Your task to perform on an android device: Open the gallery Image 0: 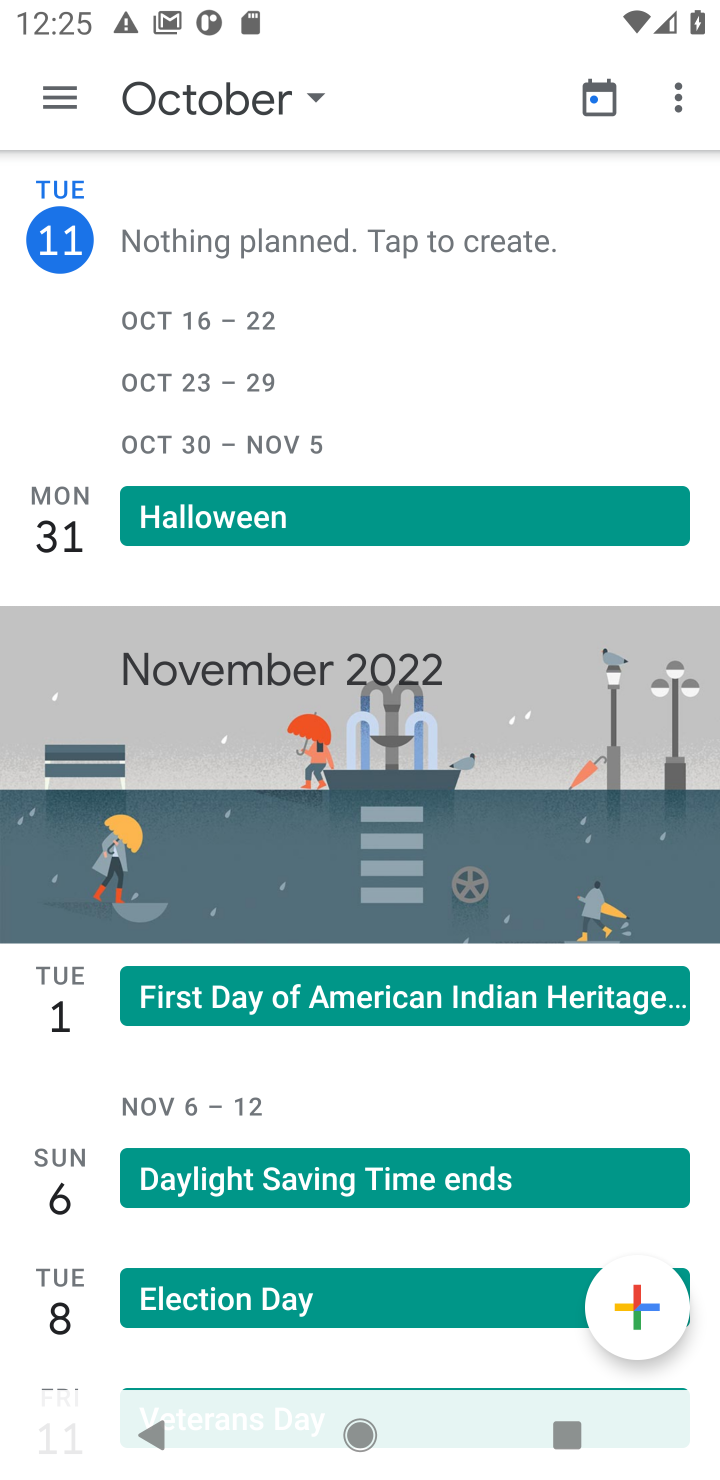
Step 0: press home button
Your task to perform on an android device: Open the gallery Image 1: 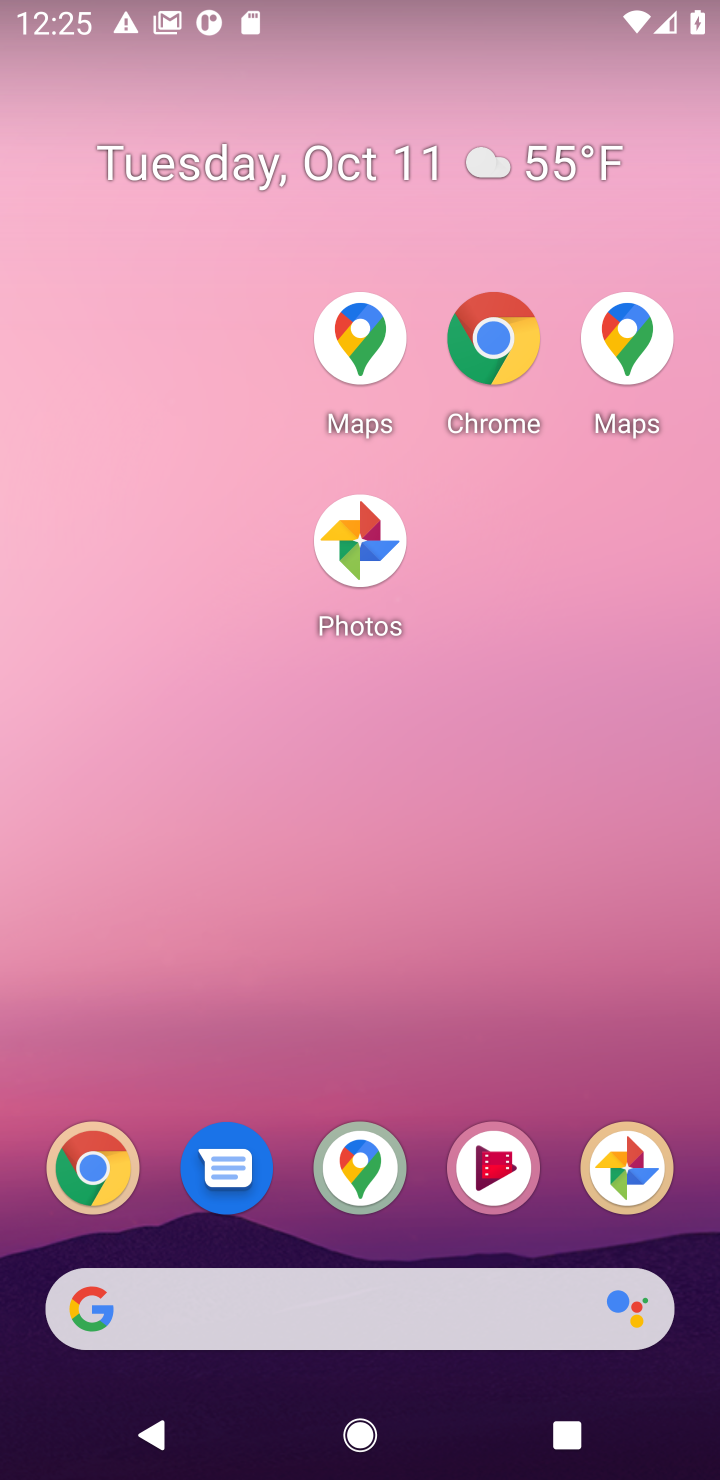
Step 1: drag from (387, 1230) to (466, 686)
Your task to perform on an android device: Open the gallery Image 2: 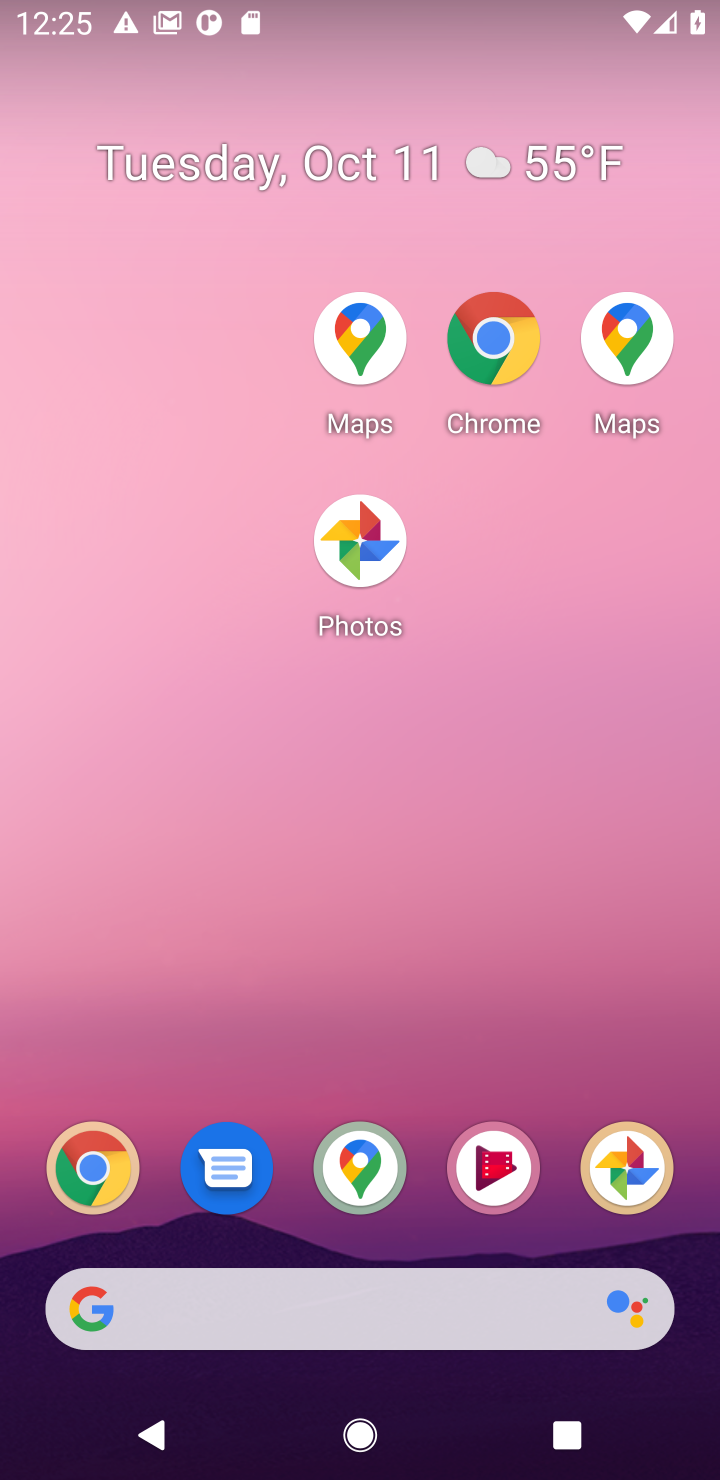
Step 2: drag from (440, 1154) to (431, 8)
Your task to perform on an android device: Open the gallery Image 3: 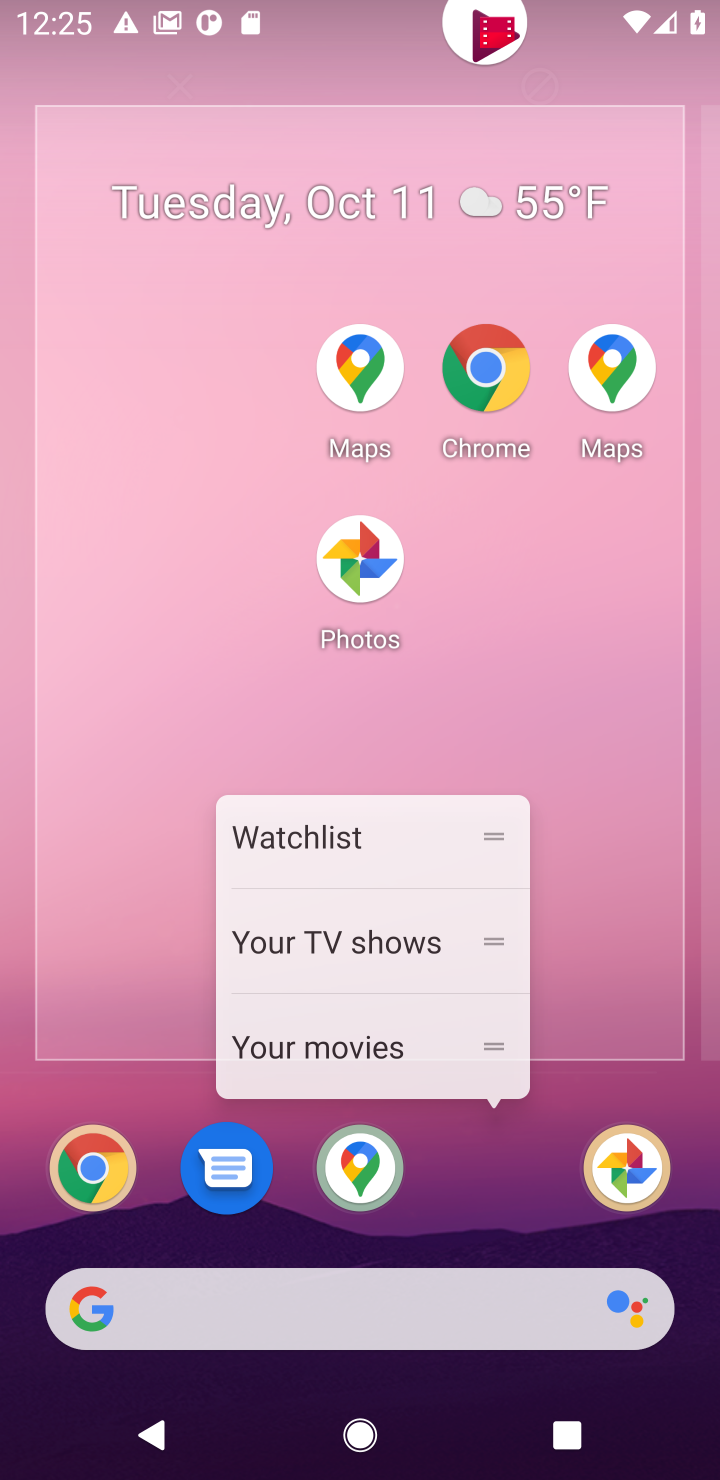
Step 3: click (639, 716)
Your task to perform on an android device: Open the gallery Image 4: 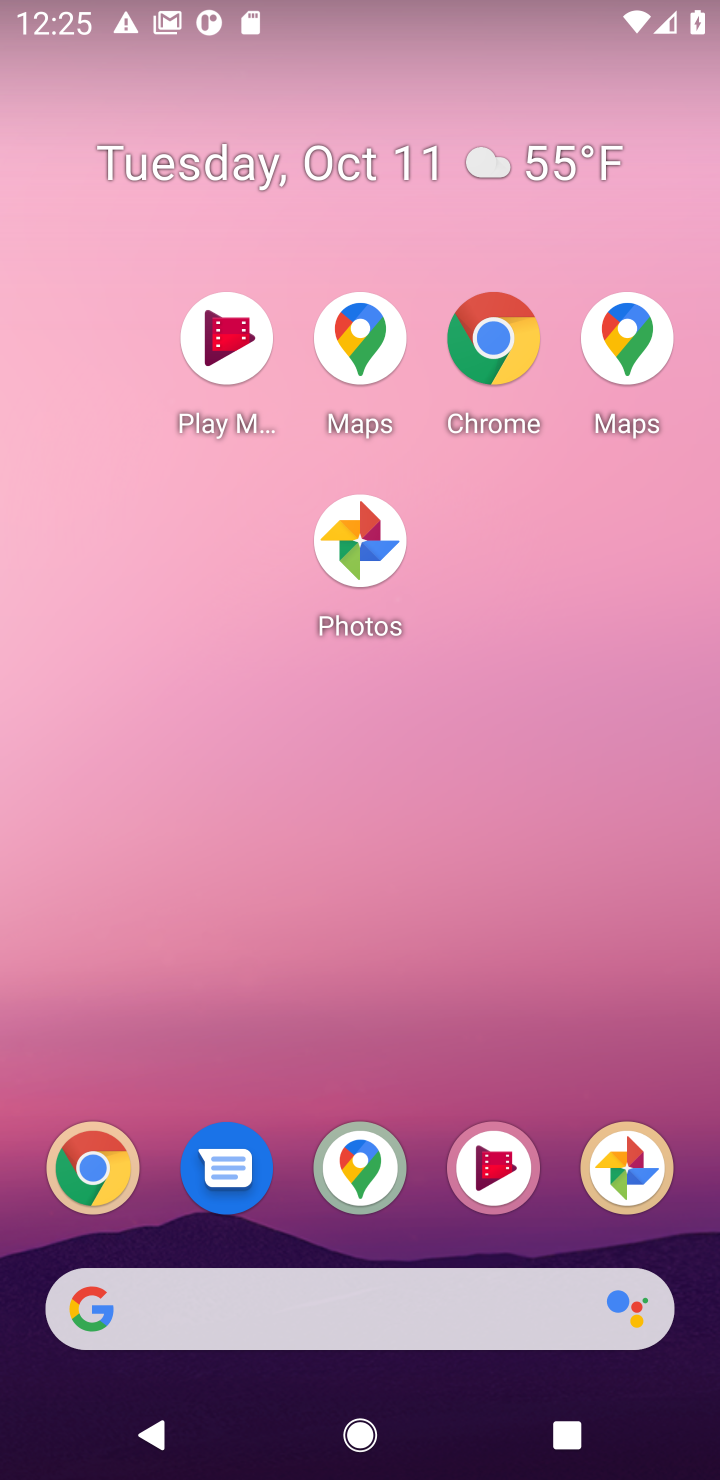
Step 4: drag from (421, 1013) to (280, 7)
Your task to perform on an android device: Open the gallery Image 5: 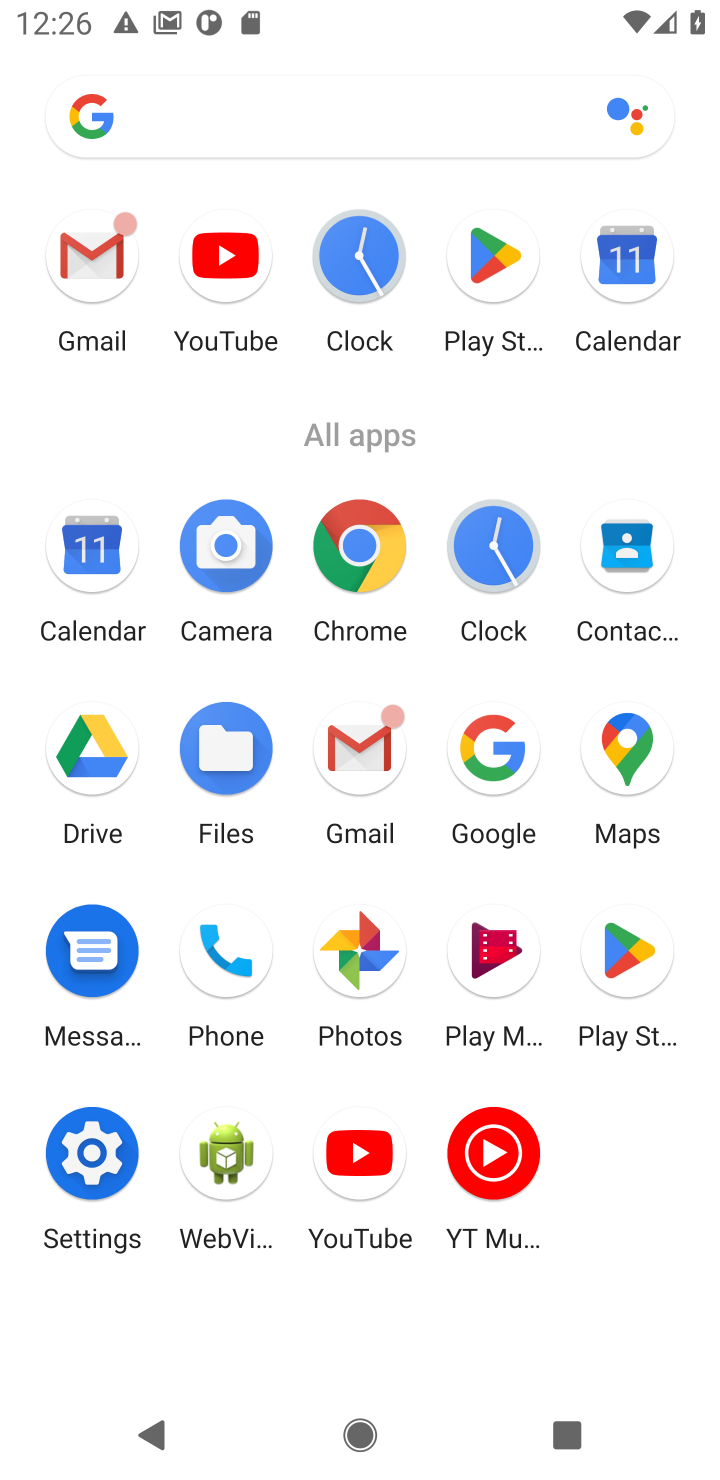
Step 5: click (356, 961)
Your task to perform on an android device: Open the gallery Image 6: 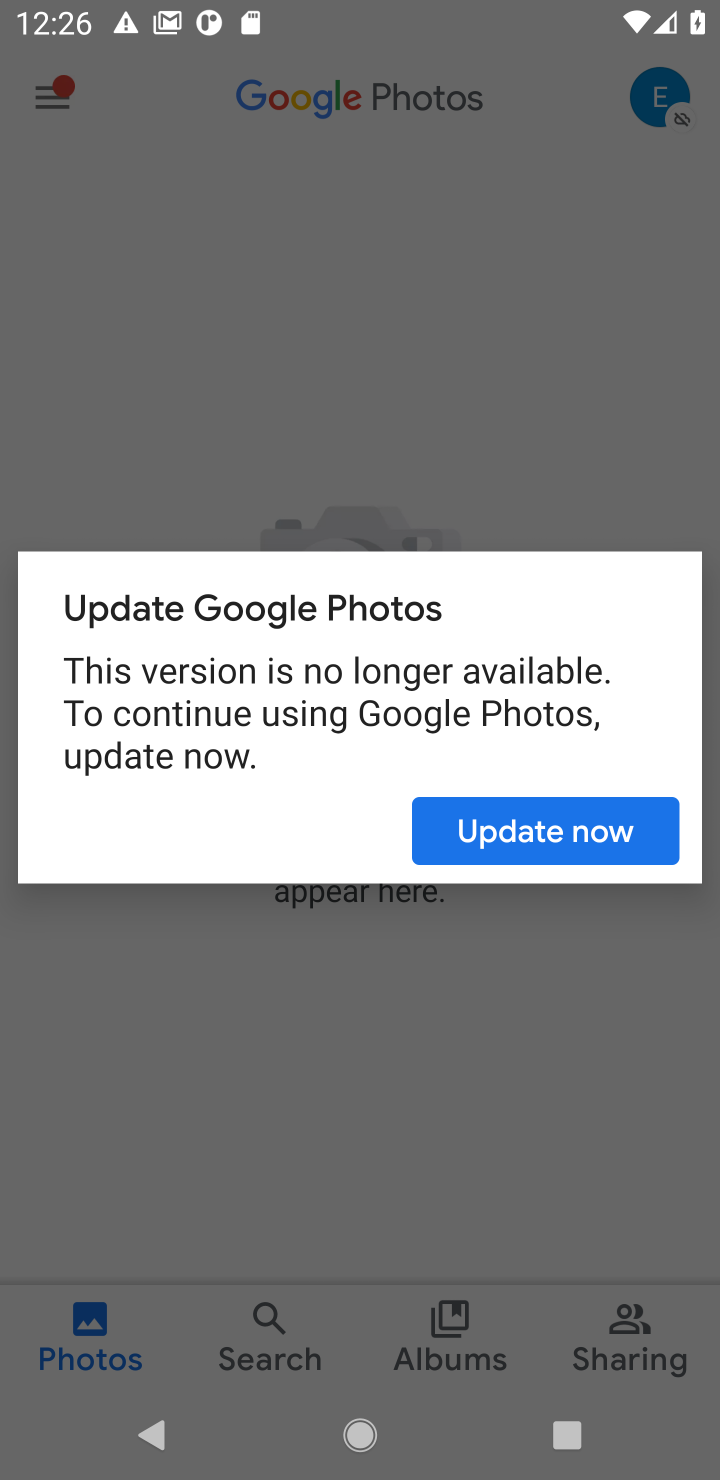
Step 6: click (512, 812)
Your task to perform on an android device: Open the gallery Image 7: 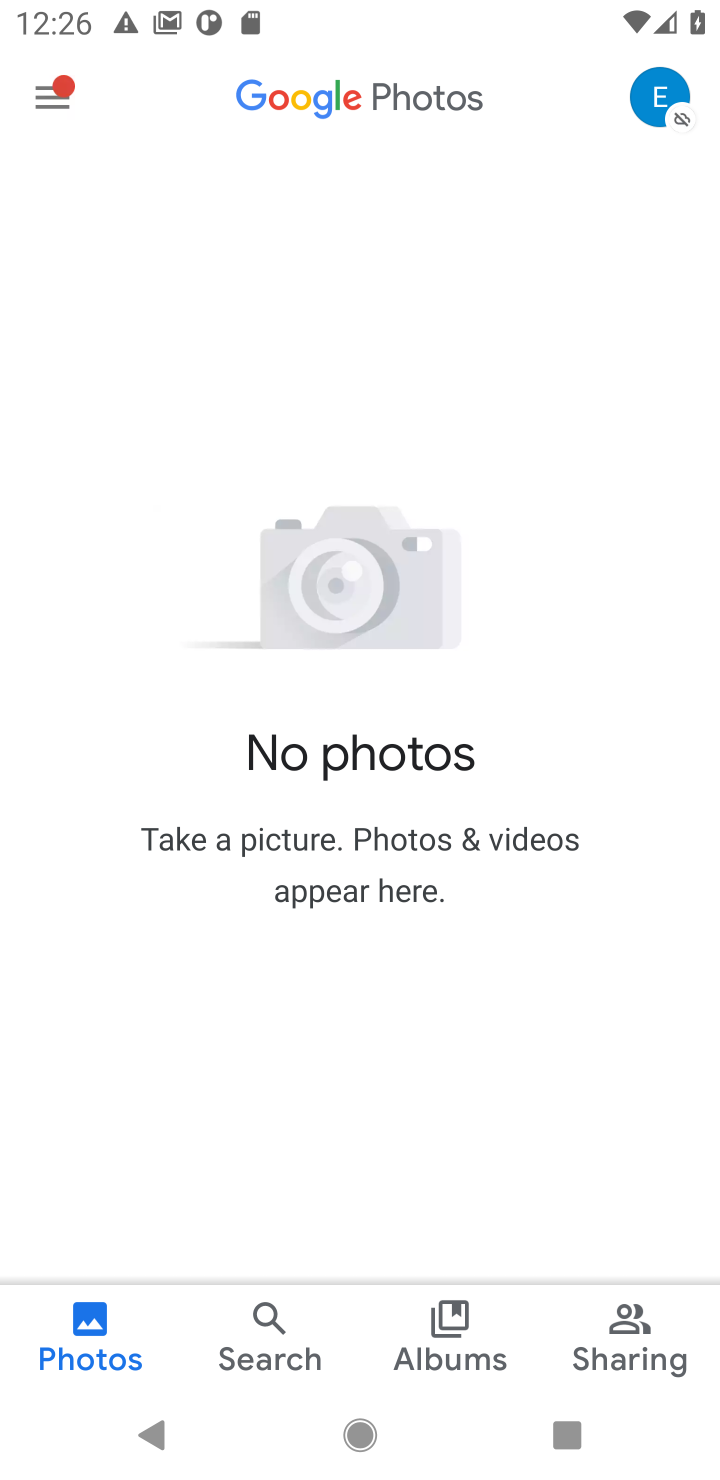
Step 7: task complete